Your task to perform on an android device: Open the phone app and click the voicemail tab. Image 0: 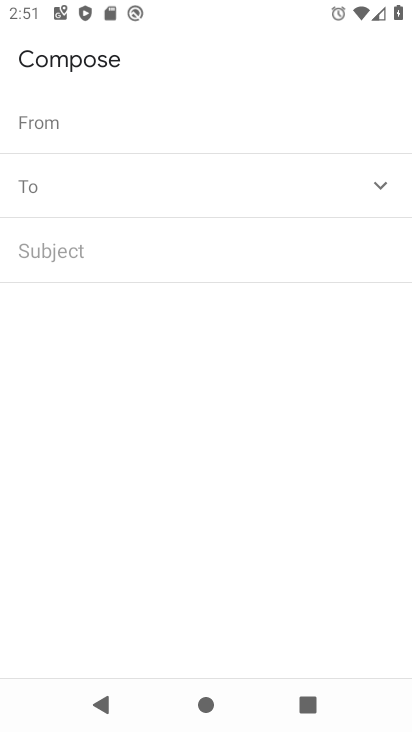
Step 0: drag from (217, 572) to (221, 143)
Your task to perform on an android device: Open the phone app and click the voicemail tab. Image 1: 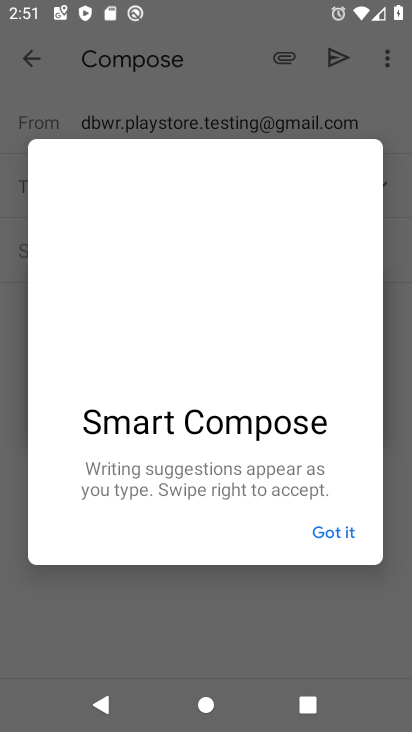
Step 1: press home button
Your task to perform on an android device: Open the phone app and click the voicemail tab. Image 2: 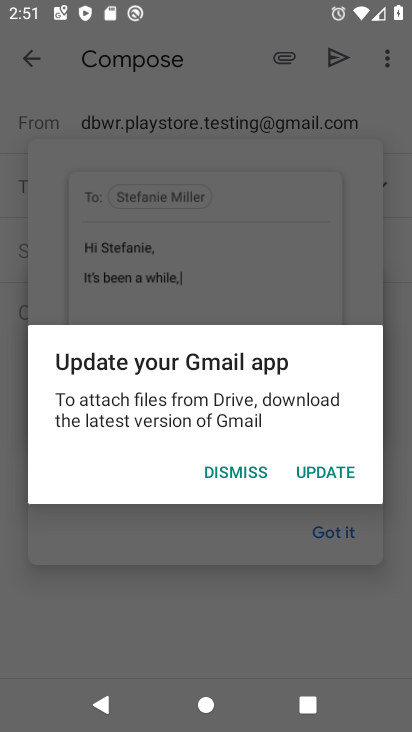
Step 2: press home button
Your task to perform on an android device: Open the phone app and click the voicemail tab. Image 3: 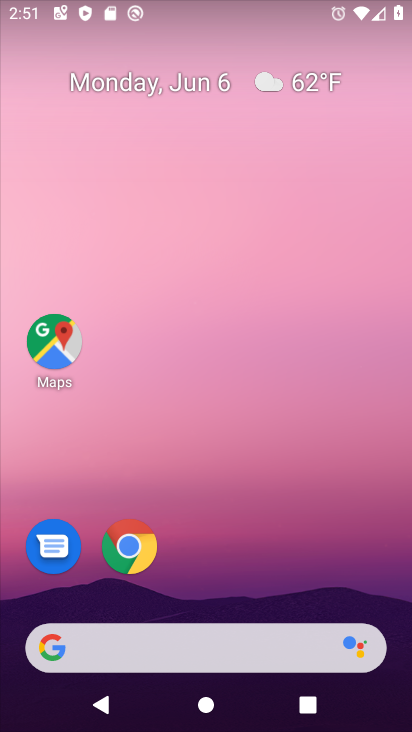
Step 3: press home button
Your task to perform on an android device: Open the phone app and click the voicemail tab. Image 4: 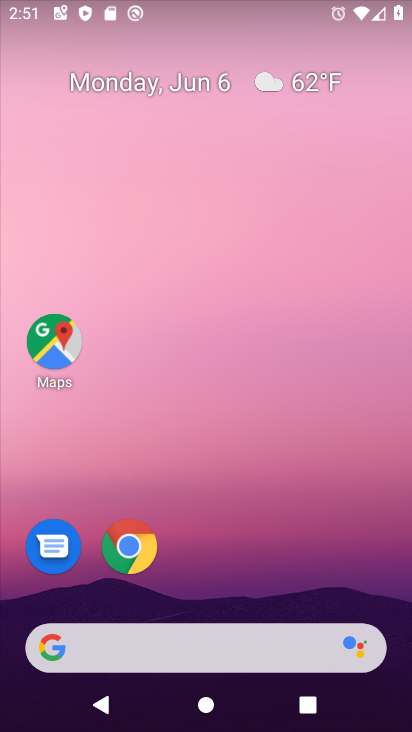
Step 4: drag from (227, 436) to (254, 176)
Your task to perform on an android device: Open the phone app and click the voicemail tab. Image 5: 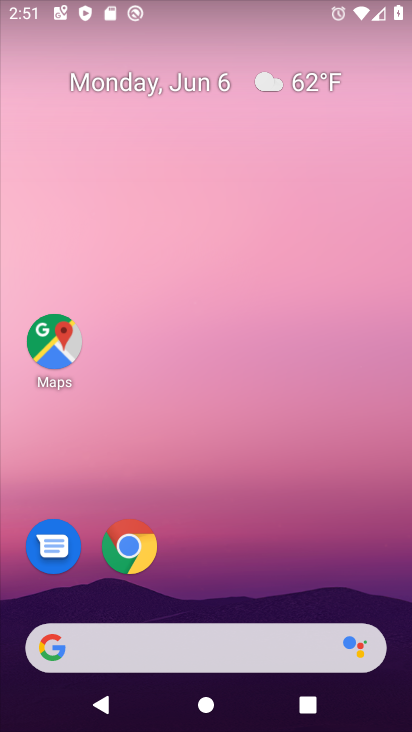
Step 5: drag from (213, 592) to (232, 136)
Your task to perform on an android device: Open the phone app and click the voicemail tab. Image 6: 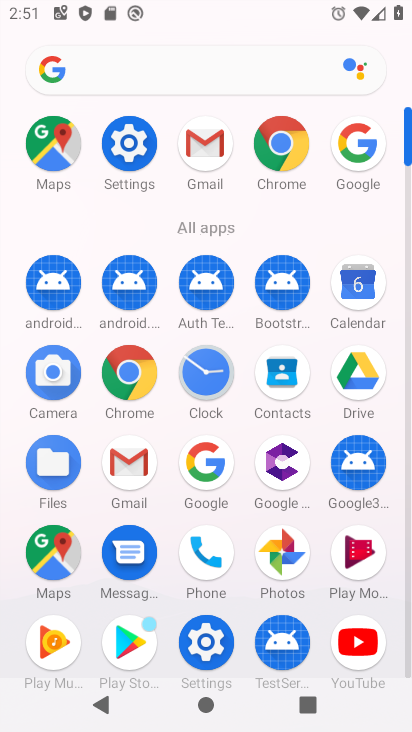
Step 6: click (208, 564)
Your task to perform on an android device: Open the phone app and click the voicemail tab. Image 7: 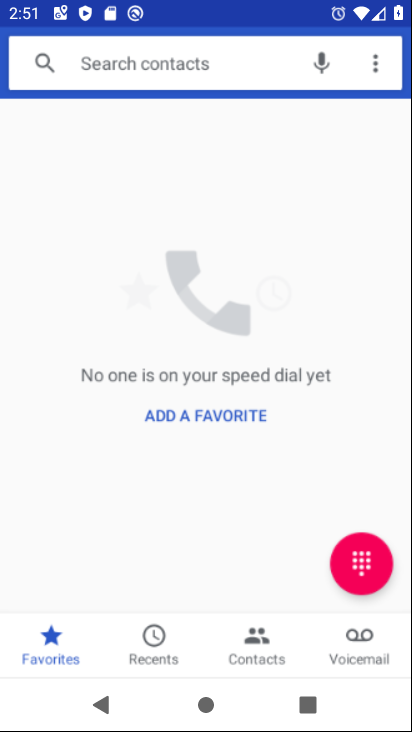
Step 7: click (358, 631)
Your task to perform on an android device: Open the phone app and click the voicemail tab. Image 8: 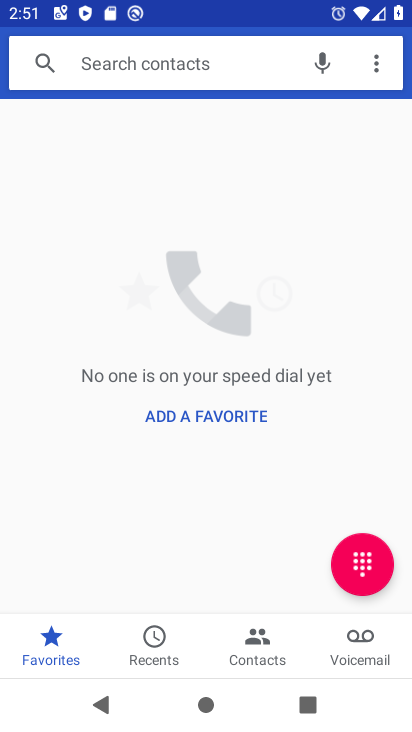
Step 8: click (362, 630)
Your task to perform on an android device: Open the phone app and click the voicemail tab. Image 9: 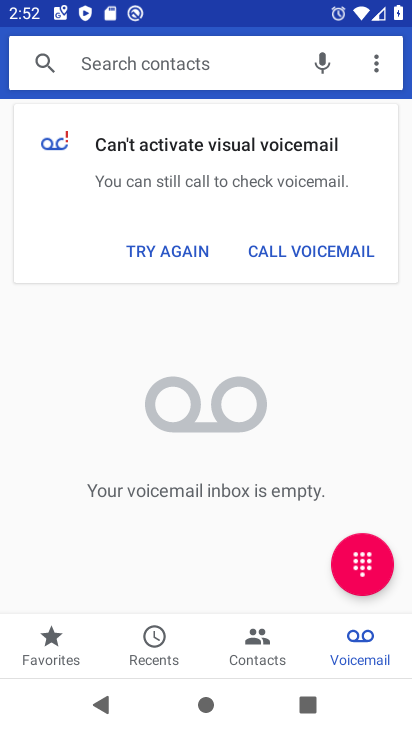
Step 9: task complete